Your task to perform on an android device: turn off priority inbox in the gmail app Image 0: 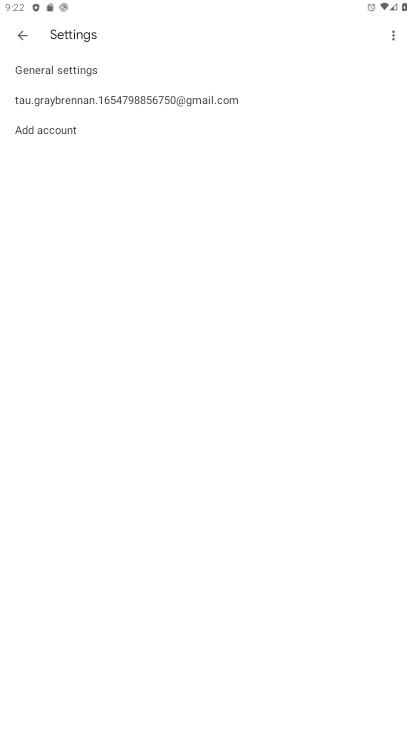
Step 0: click (135, 101)
Your task to perform on an android device: turn off priority inbox in the gmail app Image 1: 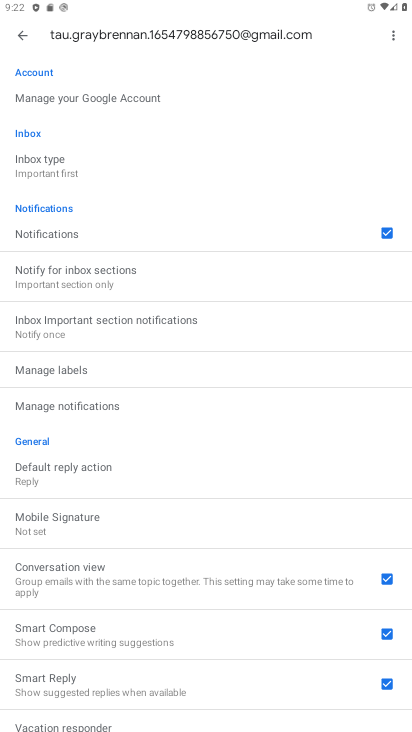
Step 1: task complete